Your task to perform on an android device: install app "Duolingo: language lessons" Image 0: 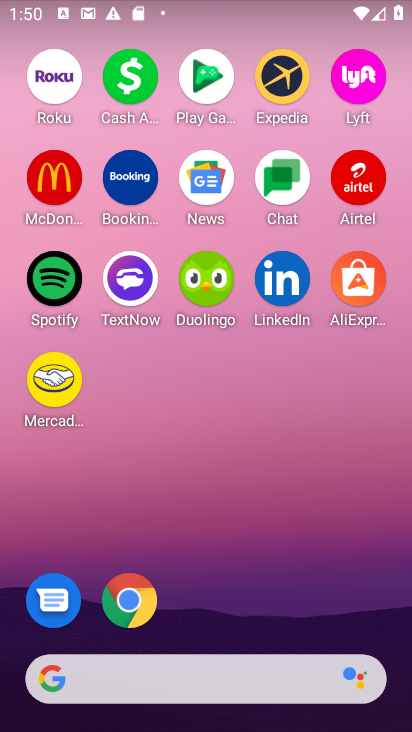
Step 0: drag from (217, 616) to (232, 12)
Your task to perform on an android device: install app "Duolingo: language lessons" Image 1: 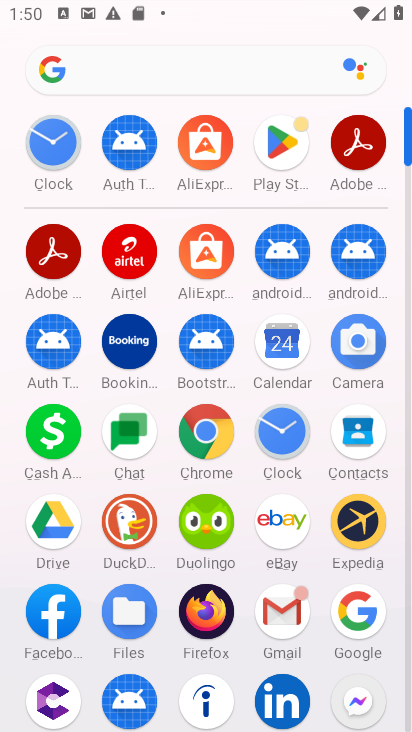
Step 1: click (271, 171)
Your task to perform on an android device: install app "Duolingo: language lessons" Image 2: 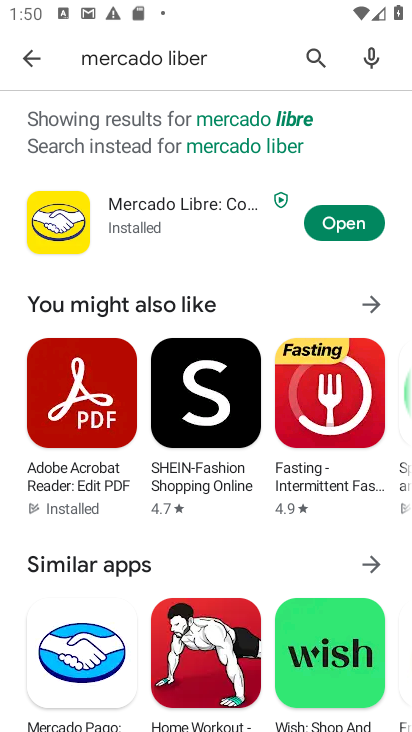
Step 2: click (308, 57)
Your task to perform on an android device: install app "Duolingo: language lessons" Image 3: 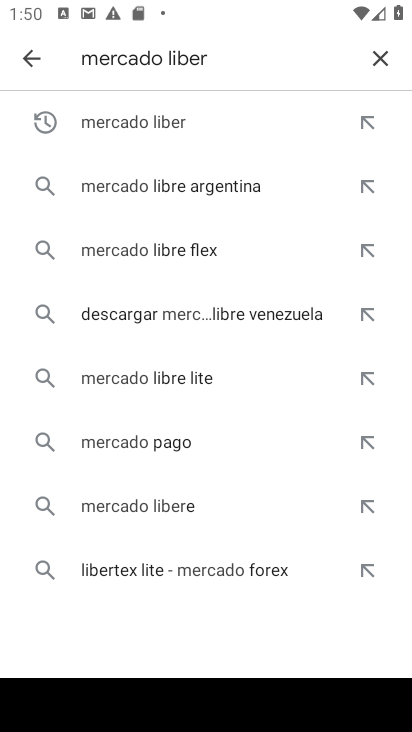
Step 3: click (376, 70)
Your task to perform on an android device: install app "Duolingo: language lessons" Image 4: 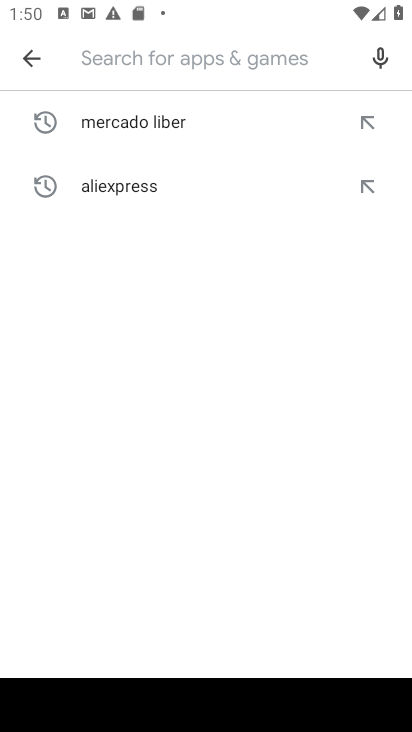
Step 4: type "dulingo"
Your task to perform on an android device: install app "Duolingo: language lessons" Image 5: 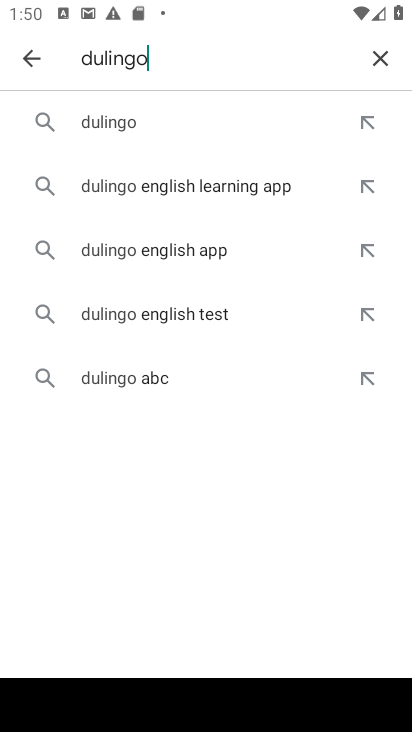
Step 5: click (217, 136)
Your task to perform on an android device: install app "Duolingo: language lessons" Image 6: 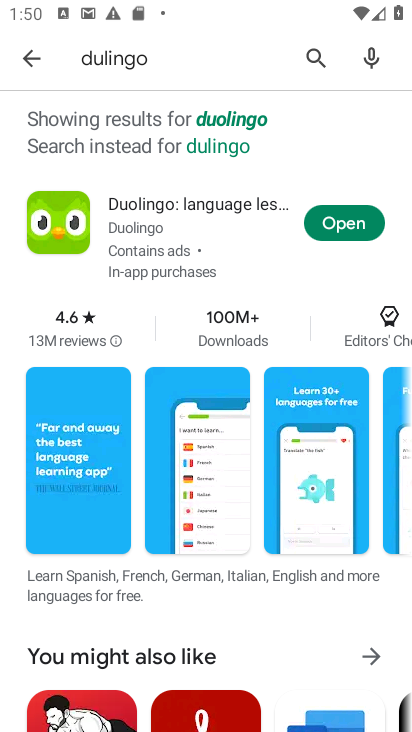
Step 6: click (335, 232)
Your task to perform on an android device: install app "Duolingo: language lessons" Image 7: 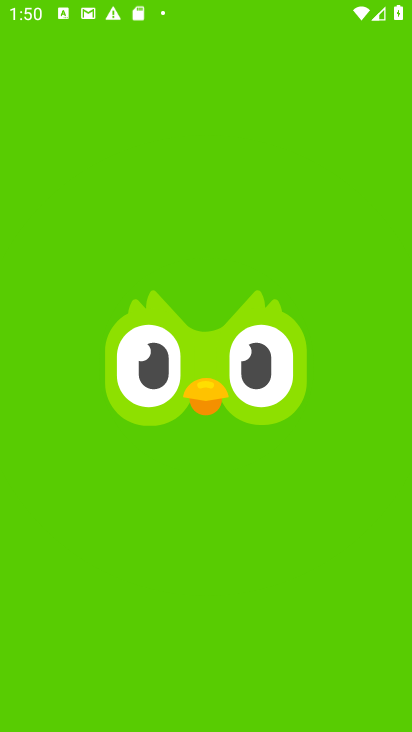
Step 7: task complete